Your task to perform on an android device: turn on the 24-hour format for clock Image 0: 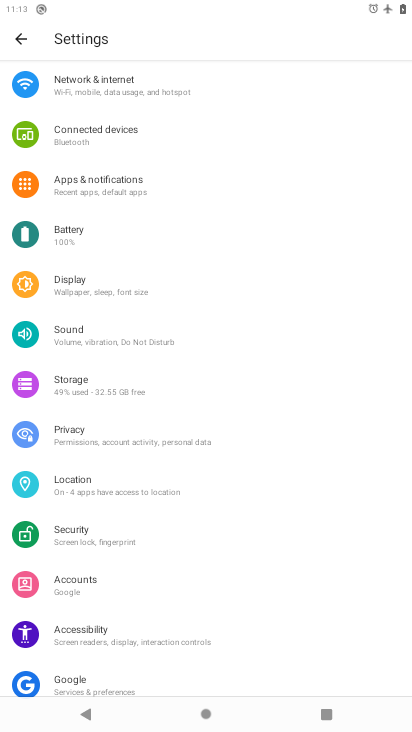
Step 0: press home button
Your task to perform on an android device: turn on the 24-hour format for clock Image 1: 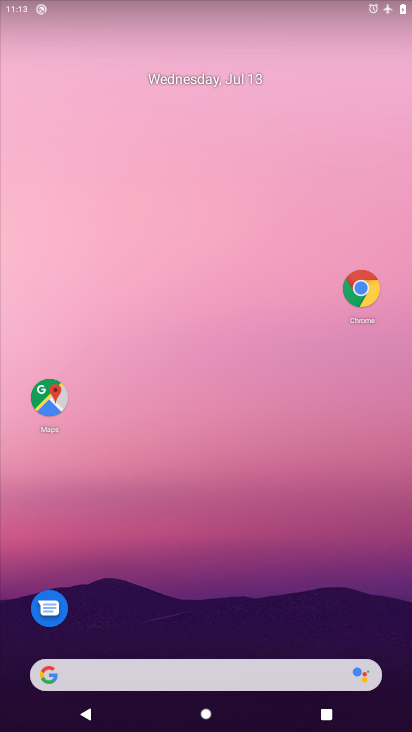
Step 1: drag from (89, 561) to (159, 200)
Your task to perform on an android device: turn on the 24-hour format for clock Image 2: 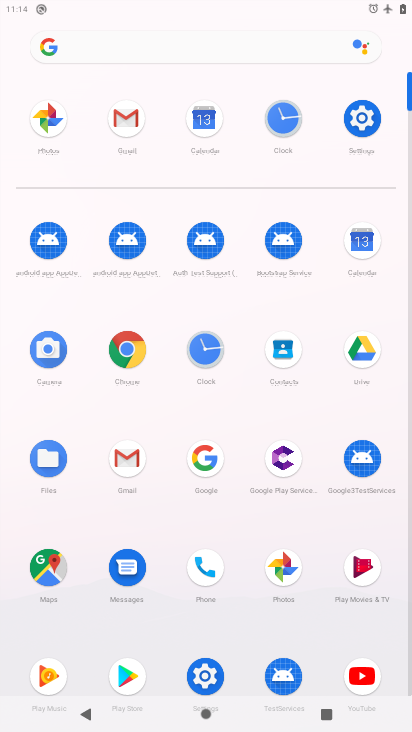
Step 2: click (290, 129)
Your task to perform on an android device: turn on the 24-hour format for clock Image 3: 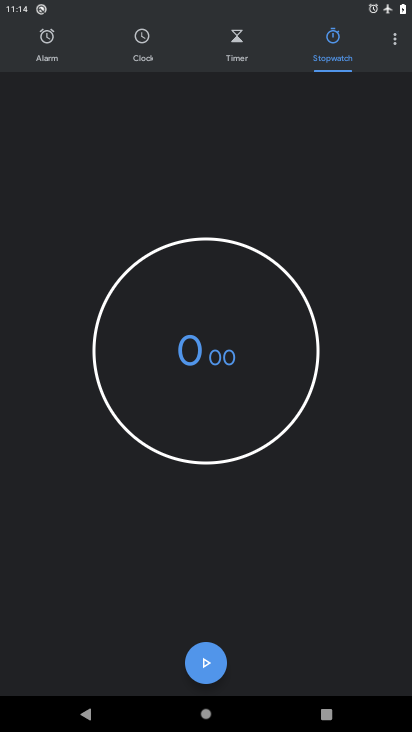
Step 3: click (144, 53)
Your task to perform on an android device: turn on the 24-hour format for clock Image 4: 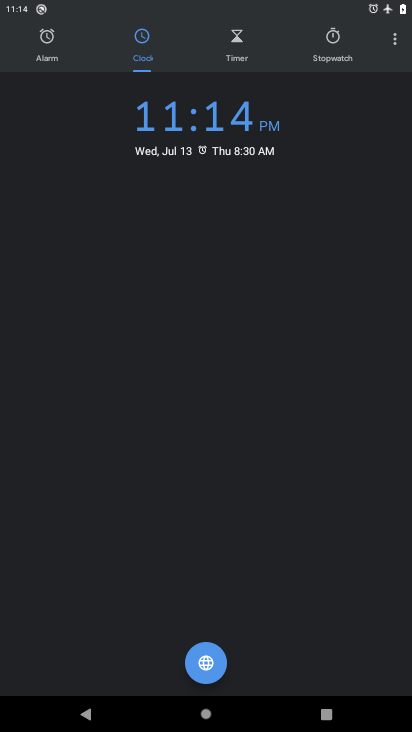
Step 4: click (391, 42)
Your task to perform on an android device: turn on the 24-hour format for clock Image 5: 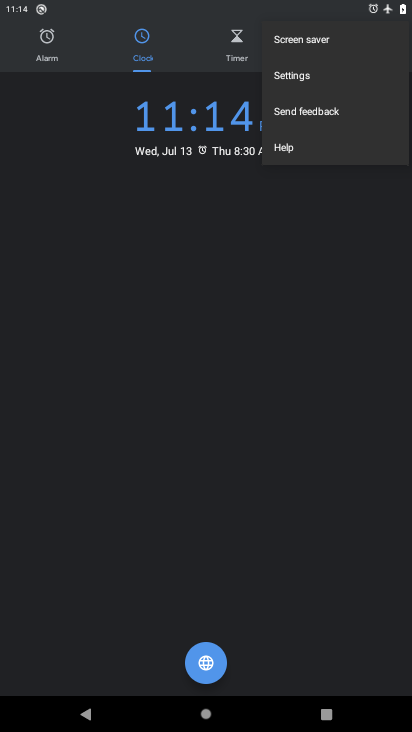
Step 5: click (299, 83)
Your task to perform on an android device: turn on the 24-hour format for clock Image 6: 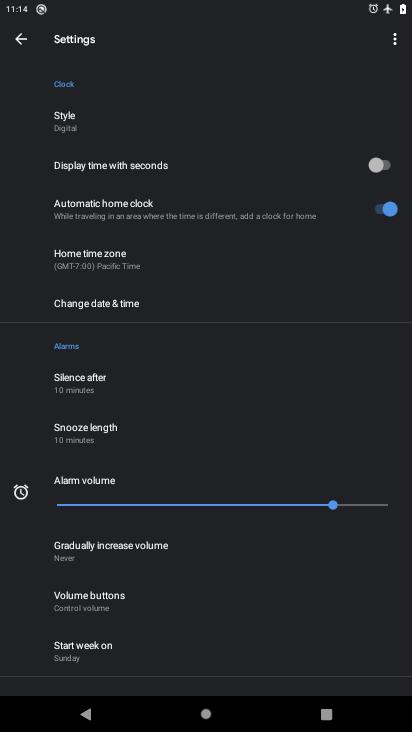
Step 6: drag from (230, 624) to (236, 168)
Your task to perform on an android device: turn on the 24-hour format for clock Image 7: 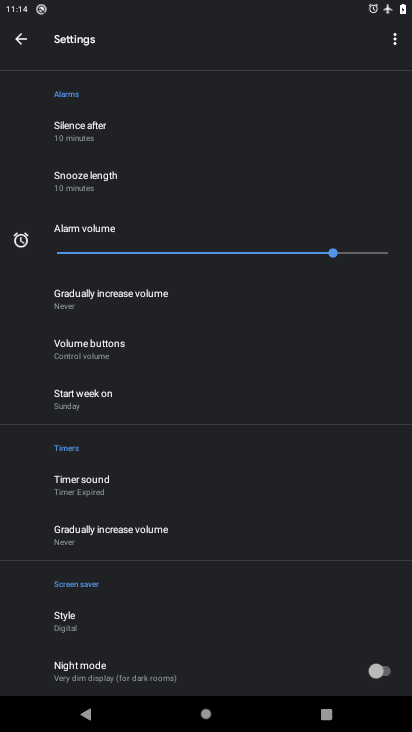
Step 7: drag from (238, 599) to (263, 241)
Your task to perform on an android device: turn on the 24-hour format for clock Image 8: 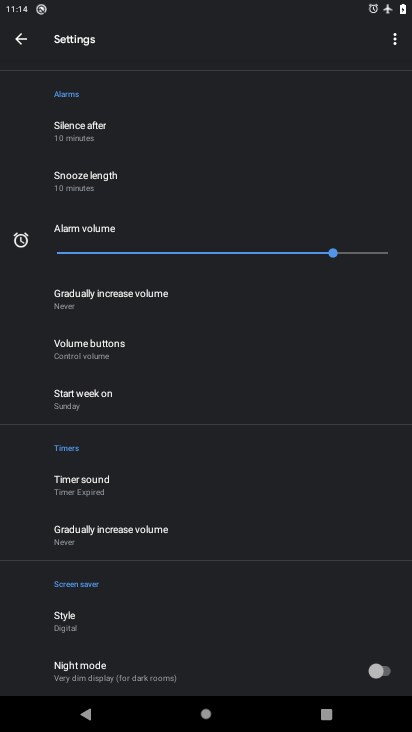
Step 8: drag from (205, 350) to (204, 725)
Your task to perform on an android device: turn on the 24-hour format for clock Image 9: 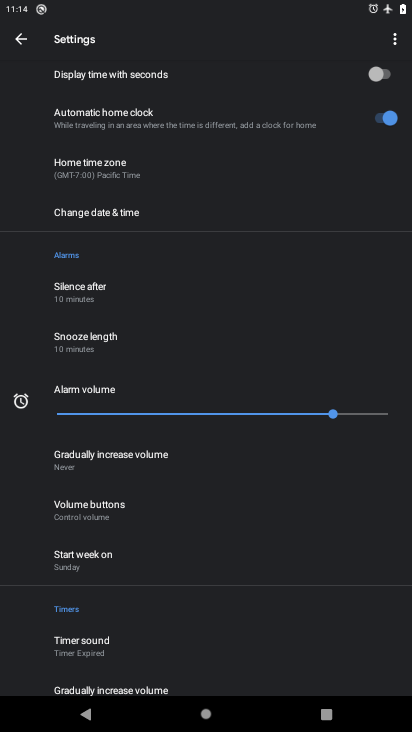
Step 9: click (123, 206)
Your task to perform on an android device: turn on the 24-hour format for clock Image 10: 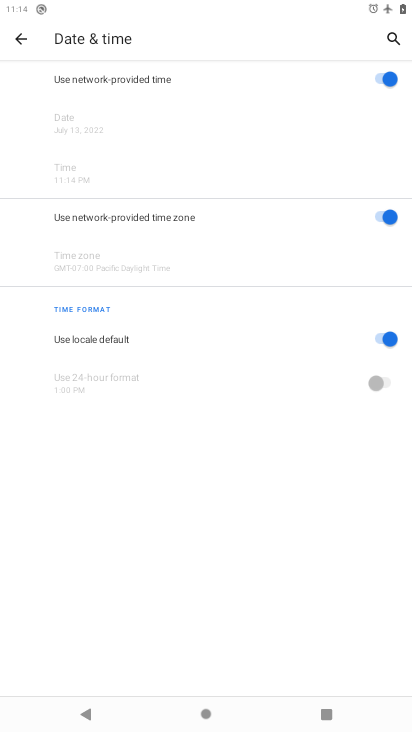
Step 10: click (373, 385)
Your task to perform on an android device: turn on the 24-hour format for clock Image 11: 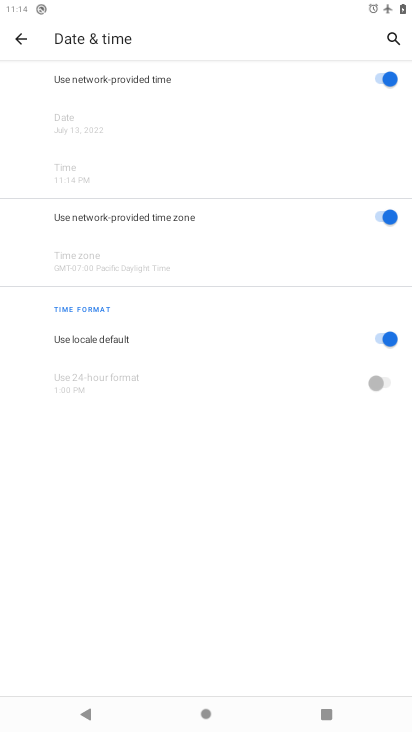
Step 11: click (390, 344)
Your task to perform on an android device: turn on the 24-hour format for clock Image 12: 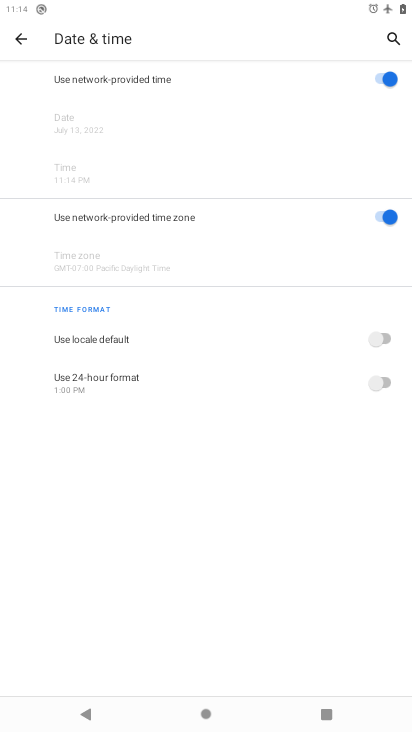
Step 12: click (384, 379)
Your task to perform on an android device: turn on the 24-hour format for clock Image 13: 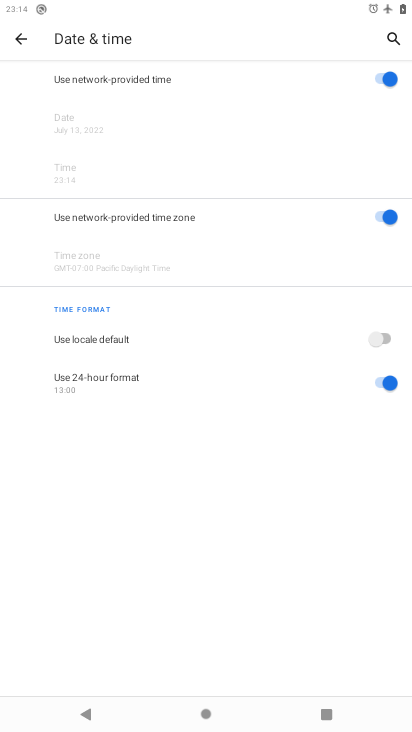
Step 13: task complete